Your task to perform on an android device: Go to Wikipedia Image 0: 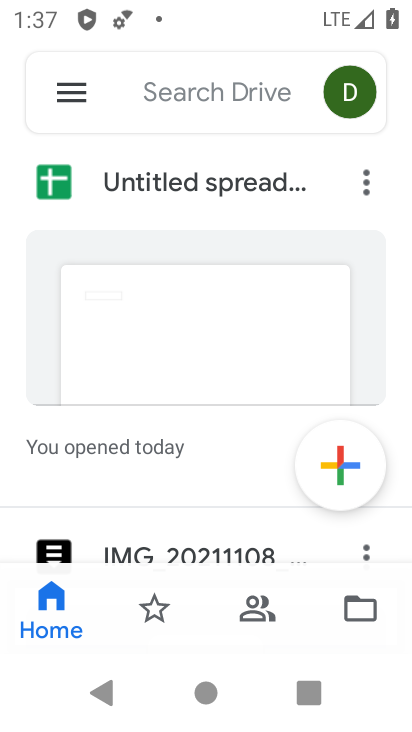
Step 0: press home button
Your task to perform on an android device: Go to Wikipedia Image 1: 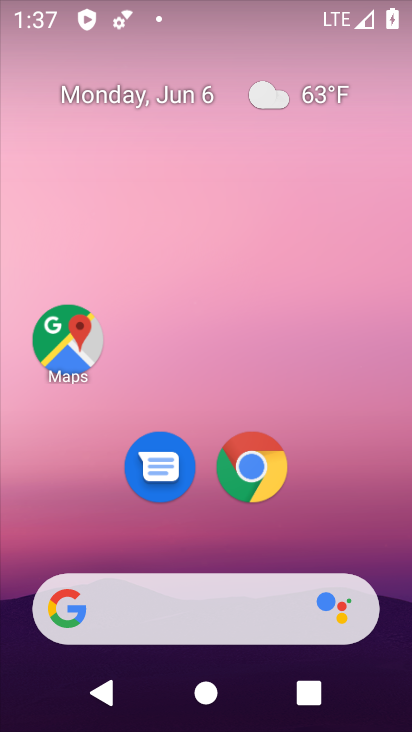
Step 1: drag from (388, 588) to (316, 19)
Your task to perform on an android device: Go to Wikipedia Image 2: 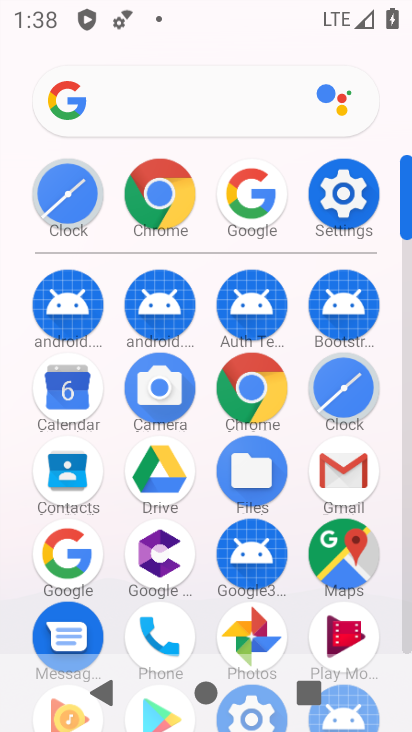
Step 2: click (87, 541)
Your task to perform on an android device: Go to Wikipedia Image 3: 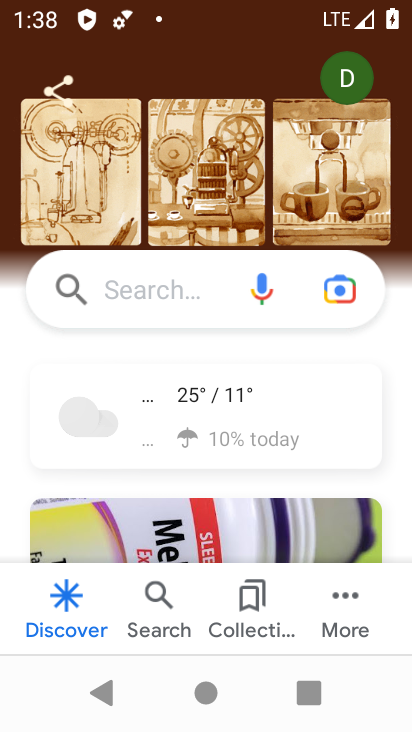
Step 3: click (146, 300)
Your task to perform on an android device: Go to Wikipedia Image 4: 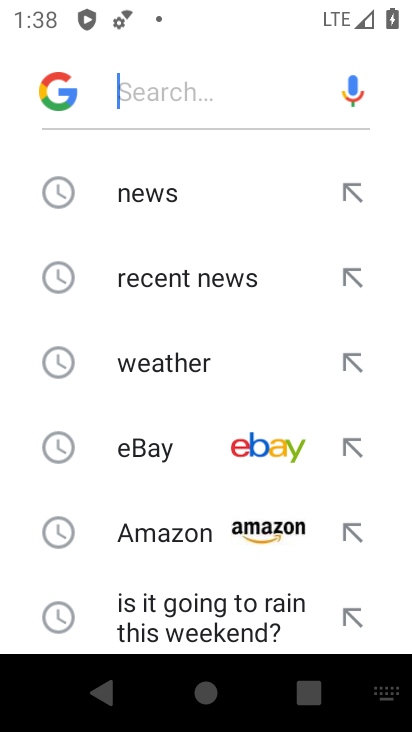
Step 4: drag from (131, 566) to (164, 65)
Your task to perform on an android device: Go to Wikipedia Image 5: 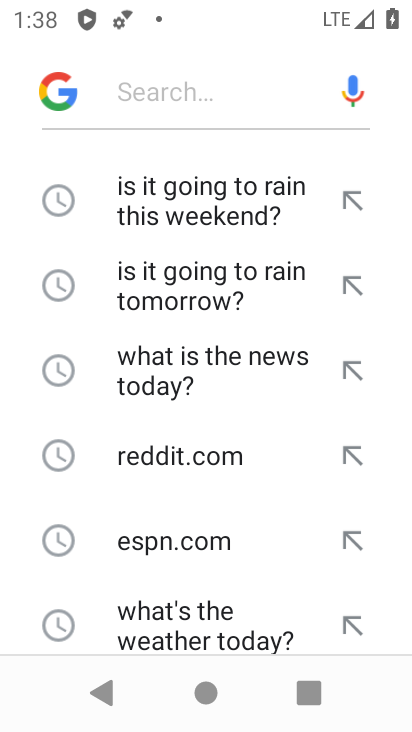
Step 5: drag from (64, 570) to (145, 27)
Your task to perform on an android device: Go to Wikipedia Image 6: 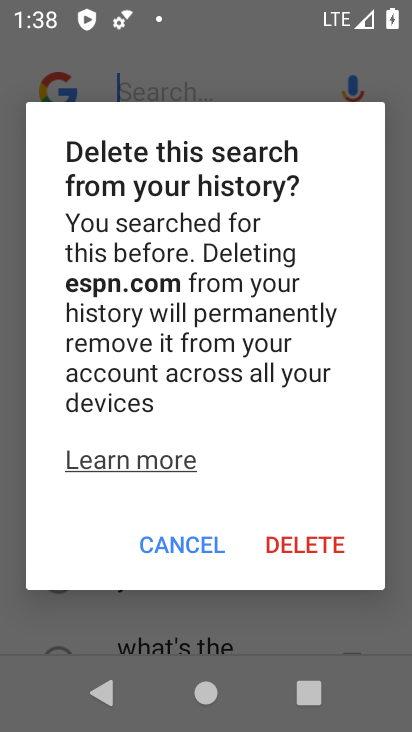
Step 6: click (173, 554)
Your task to perform on an android device: Go to Wikipedia Image 7: 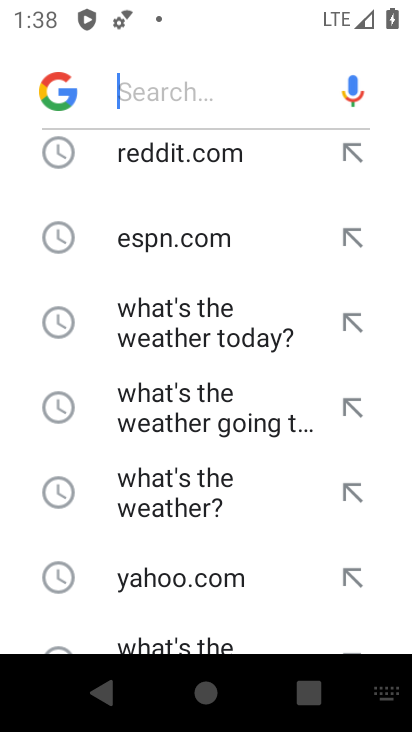
Step 7: drag from (143, 562) to (84, 62)
Your task to perform on an android device: Go to Wikipedia Image 8: 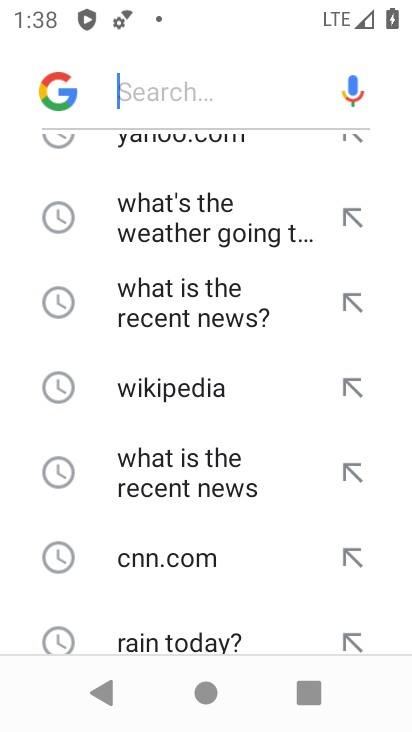
Step 8: click (163, 371)
Your task to perform on an android device: Go to Wikipedia Image 9: 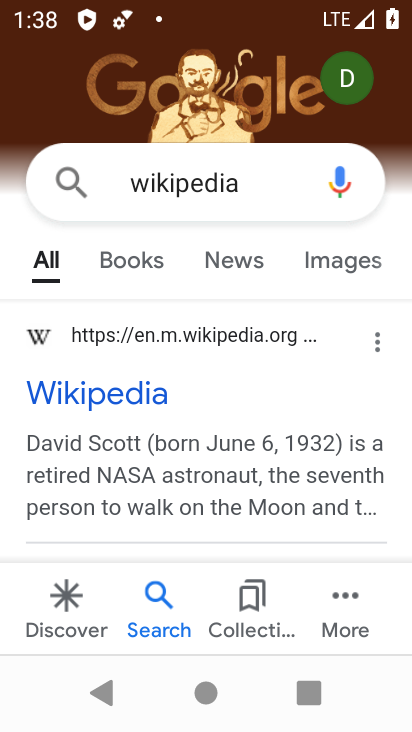
Step 9: task complete